Your task to perform on an android device: change notifications settings Image 0: 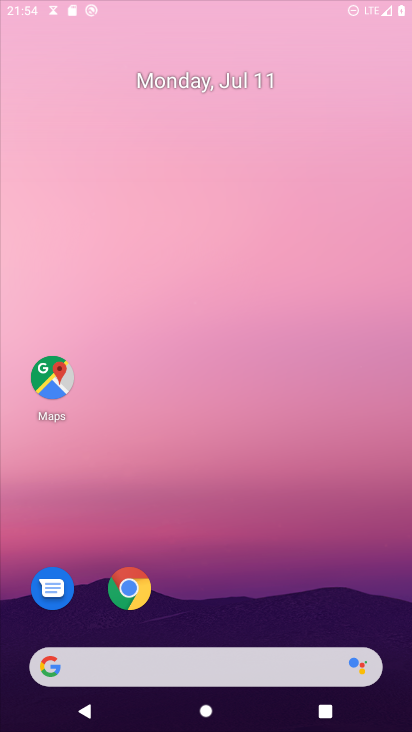
Step 0: press home button
Your task to perform on an android device: change notifications settings Image 1: 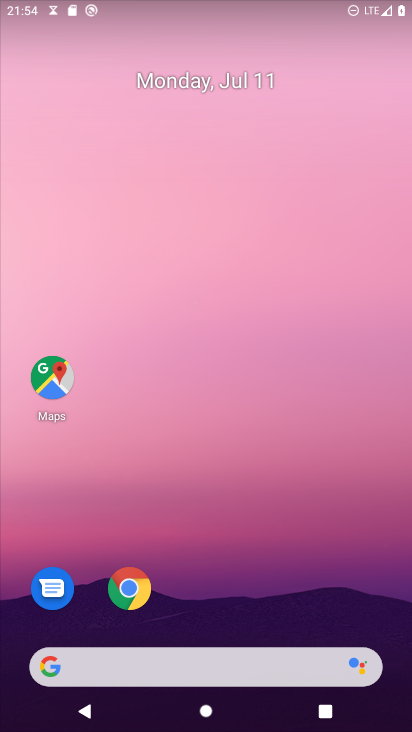
Step 1: drag from (229, 615) to (142, 93)
Your task to perform on an android device: change notifications settings Image 2: 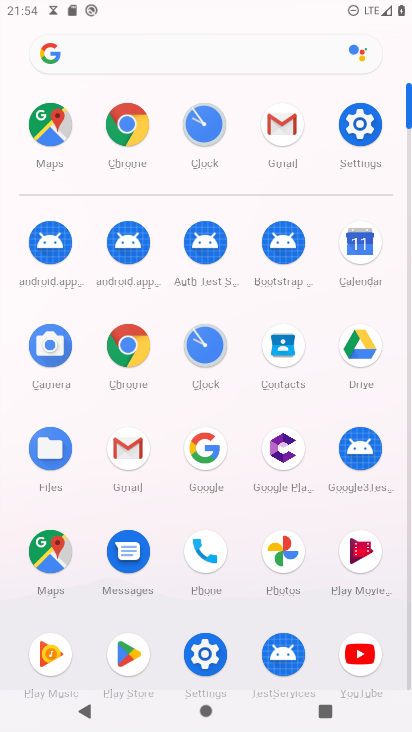
Step 2: click (362, 126)
Your task to perform on an android device: change notifications settings Image 3: 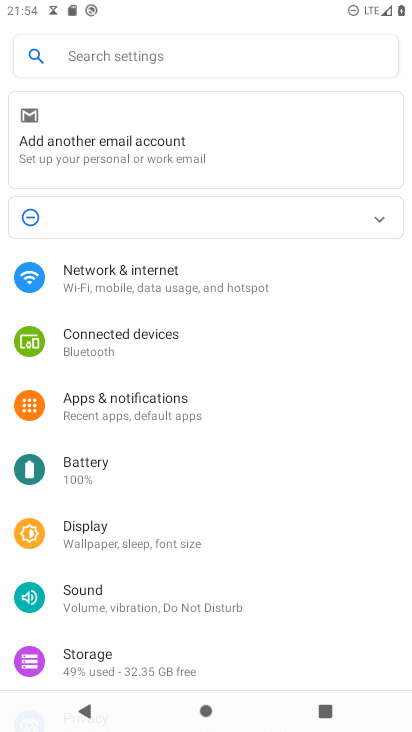
Step 3: click (112, 411)
Your task to perform on an android device: change notifications settings Image 4: 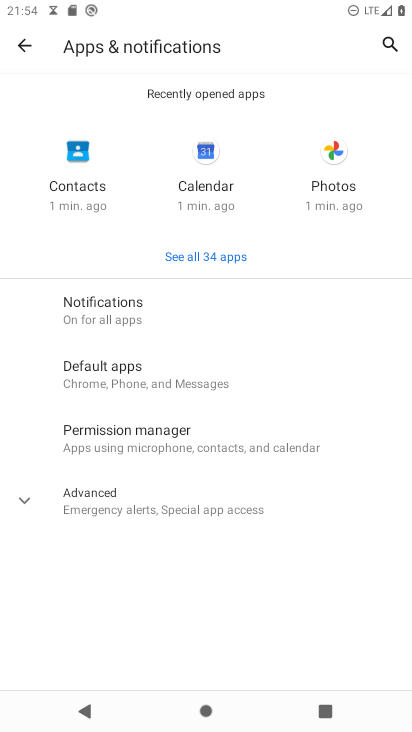
Step 4: click (93, 301)
Your task to perform on an android device: change notifications settings Image 5: 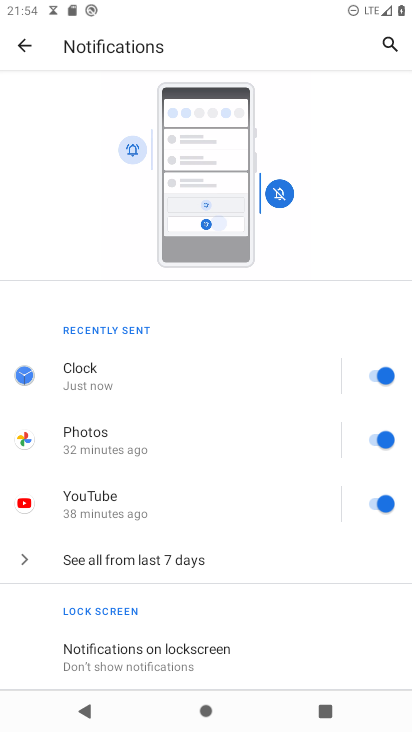
Step 5: click (158, 670)
Your task to perform on an android device: change notifications settings Image 6: 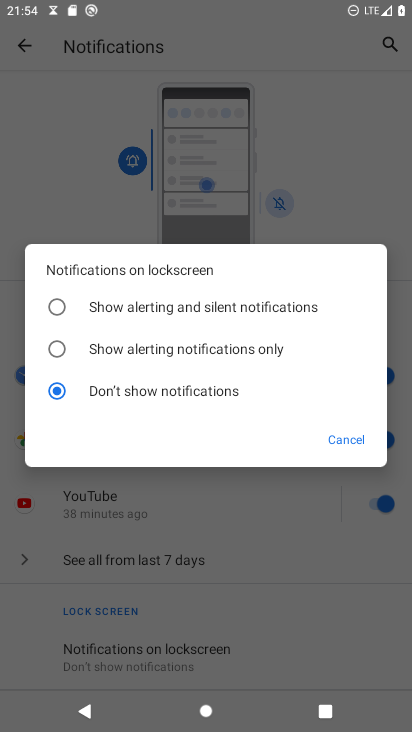
Step 6: click (59, 300)
Your task to perform on an android device: change notifications settings Image 7: 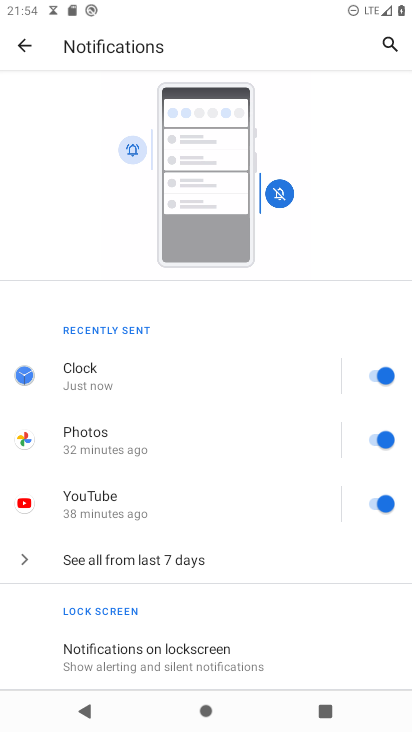
Step 7: task complete